Your task to perform on an android device: turn smart compose on in the gmail app Image 0: 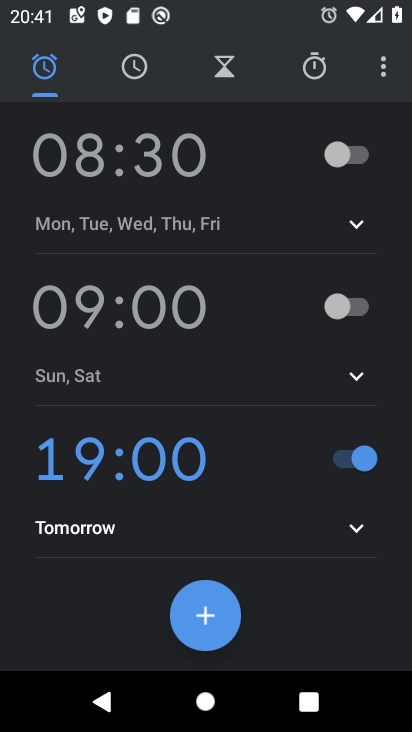
Step 0: press home button
Your task to perform on an android device: turn smart compose on in the gmail app Image 1: 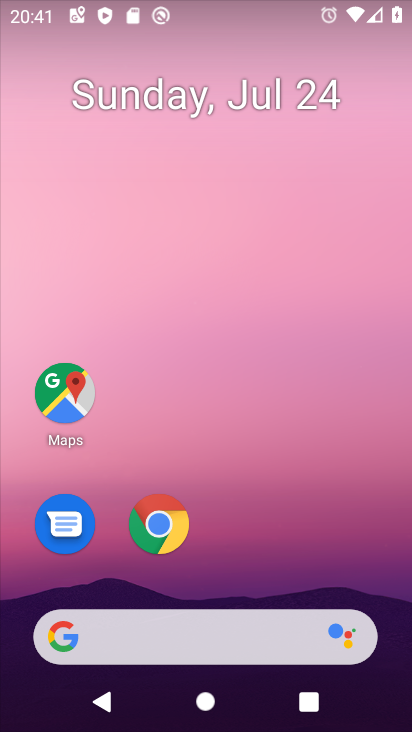
Step 1: drag from (264, 546) to (266, 19)
Your task to perform on an android device: turn smart compose on in the gmail app Image 2: 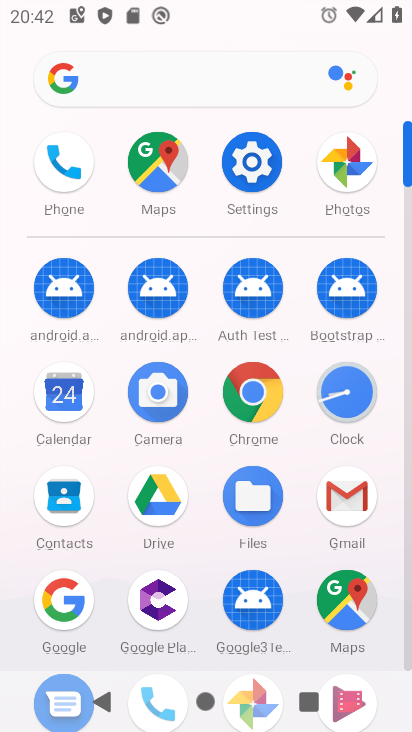
Step 2: click (342, 492)
Your task to perform on an android device: turn smart compose on in the gmail app Image 3: 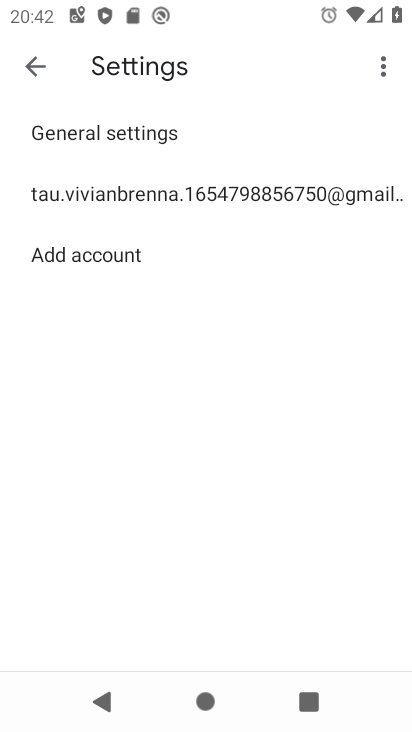
Step 3: click (214, 195)
Your task to perform on an android device: turn smart compose on in the gmail app Image 4: 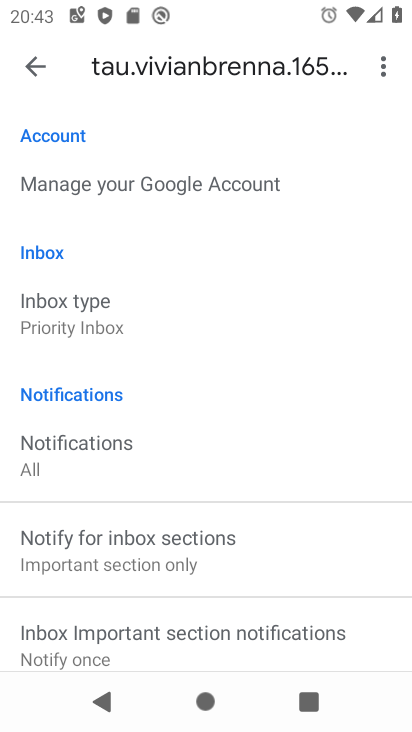
Step 4: task complete